Your task to perform on an android device: Open internet settings Image 0: 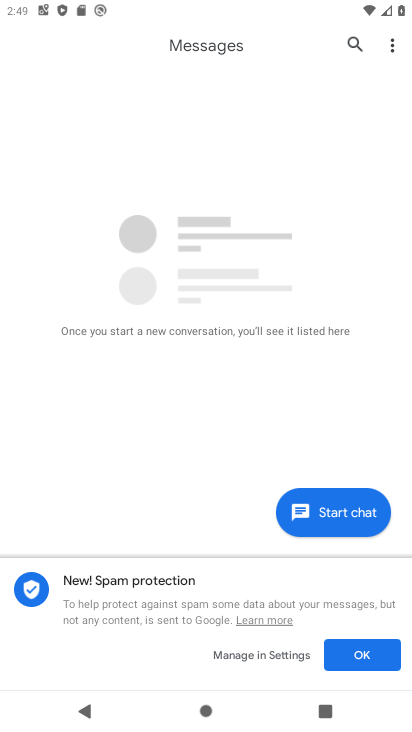
Step 0: press home button
Your task to perform on an android device: Open internet settings Image 1: 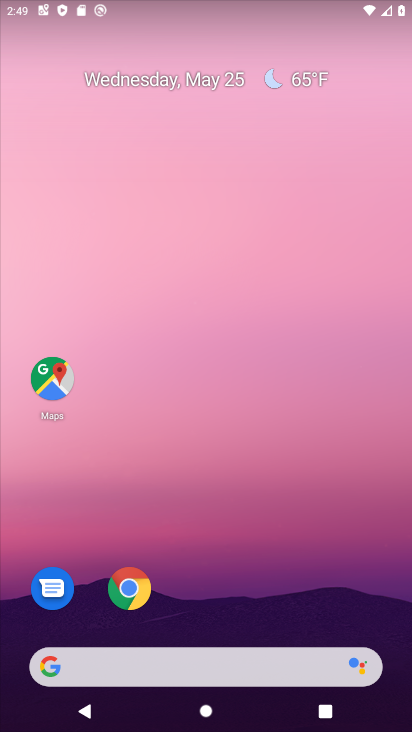
Step 1: drag from (183, 599) to (202, 149)
Your task to perform on an android device: Open internet settings Image 2: 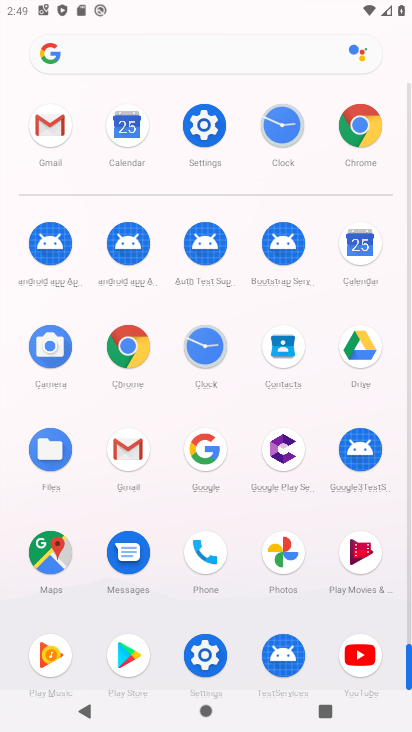
Step 2: click (206, 128)
Your task to perform on an android device: Open internet settings Image 3: 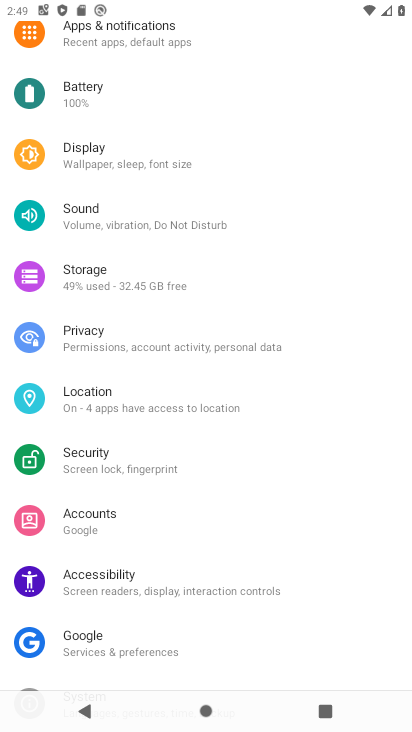
Step 3: drag from (220, 117) to (194, 570)
Your task to perform on an android device: Open internet settings Image 4: 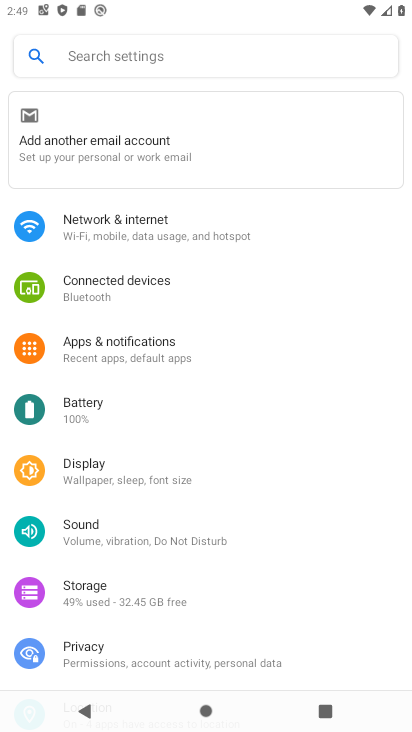
Step 4: click (181, 240)
Your task to perform on an android device: Open internet settings Image 5: 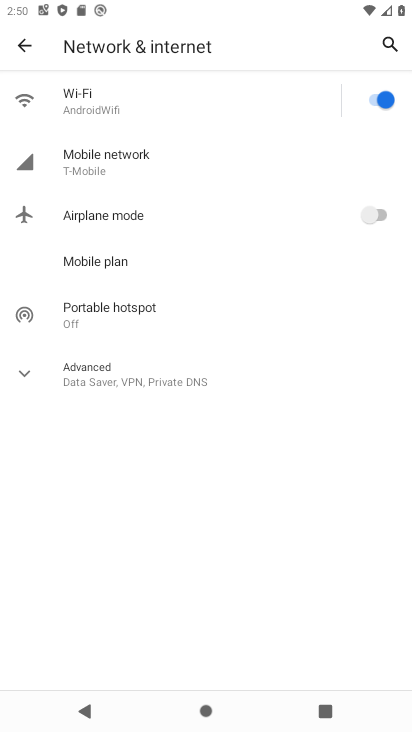
Step 5: task complete